Your task to perform on an android device: turn off javascript in the chrome app Image 0: 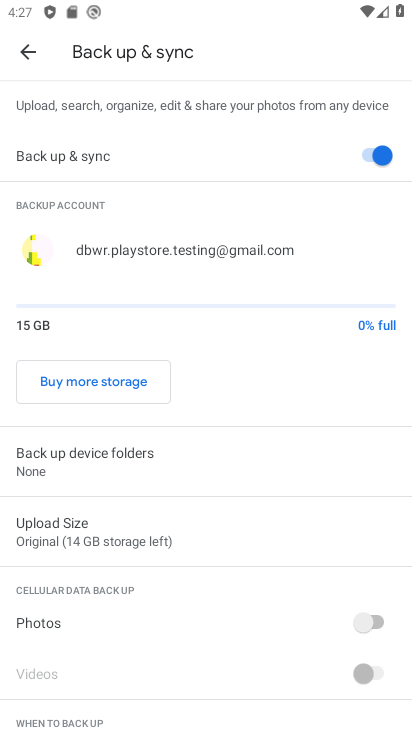
Step 0: press home button
Your task to perform on an android device: turn off javascript in the chrome app Image 1: 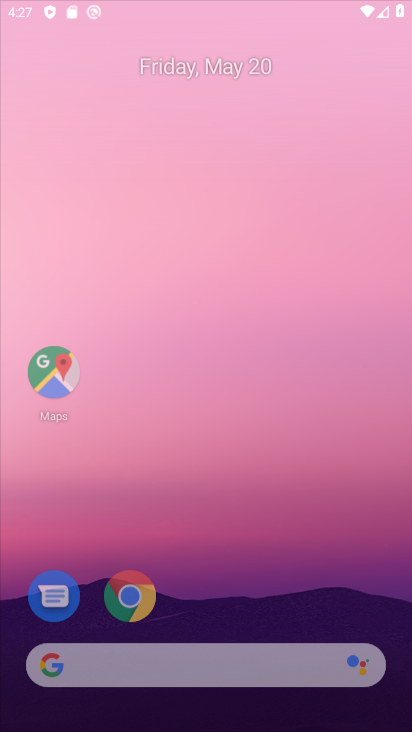
Step 1: drag from (229, 694) to (311, 226)
Your task to perform on an android device: turn off javascript in the chrome app Image 2: 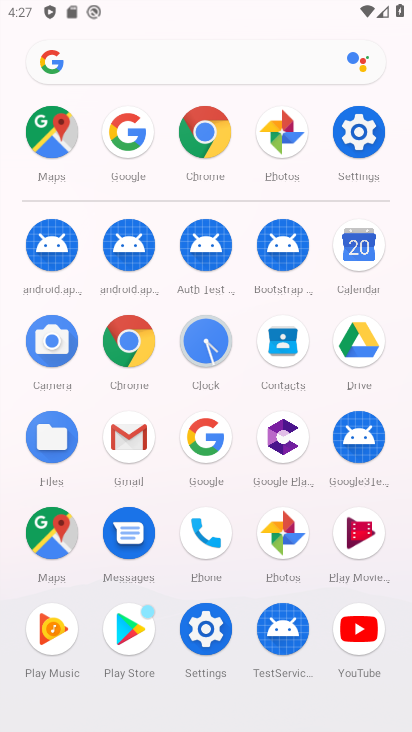
Step 2: click (210, 151)
Your task to perform on an android device: turn off javascript in the chrome app Image 3: 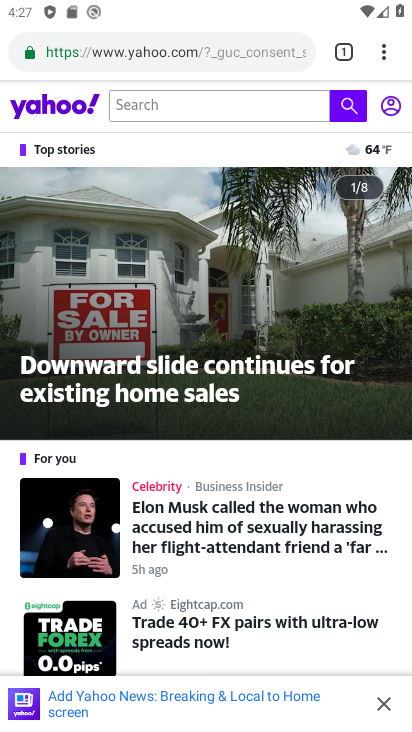
Step 3: click (387, 49)
Your task to perform on an android device: turn off javascript in the chrome app Image 4: 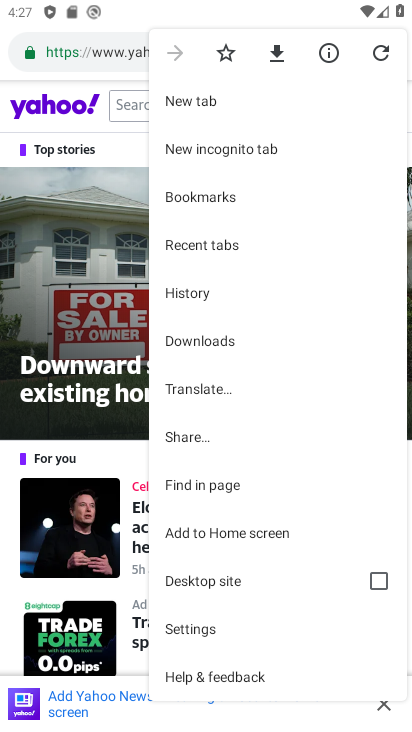
Step 4: click (232, 626)
Your task to perform on an android device: turn off javascript in the chrome app Image 5: 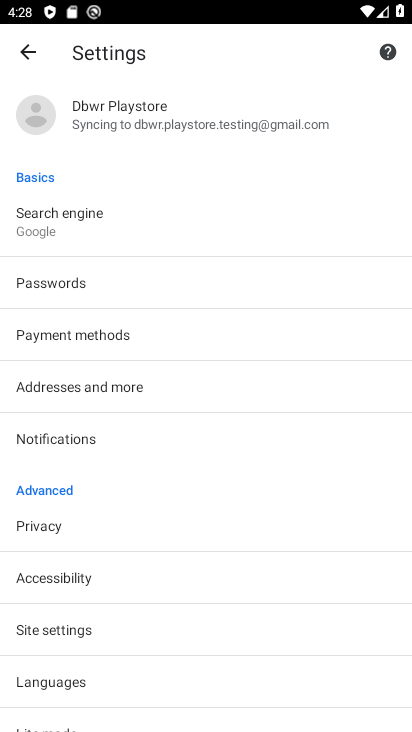
Step 5: click (95, 639)
Your task to perform on an android device: turn off javascript in the chrome app Image 6: 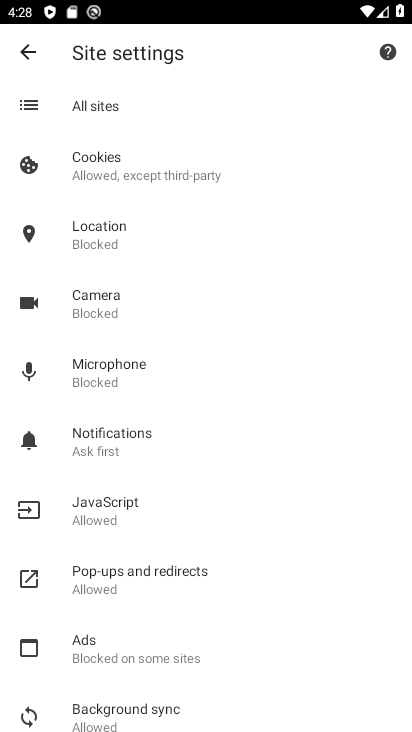
Step 6: click (172, 523)
Your task to perform on an android device: turn off javascript in the chrome app Image 7: 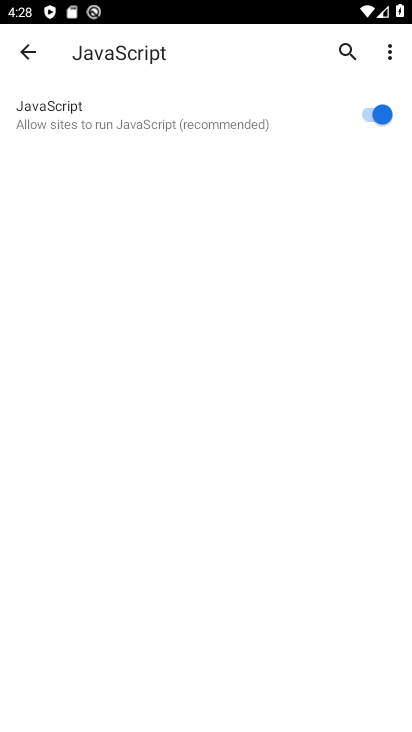
Step 7: click (370, 105)
Your task to perform on an android device: turn off javascript in the chrome app Image 8: 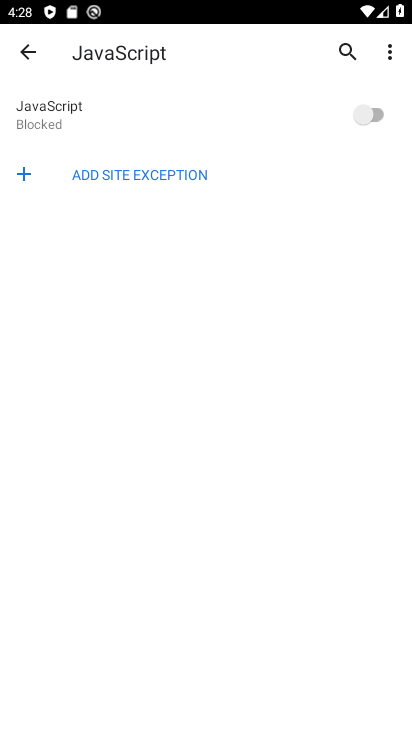
Step 8: task complete